Your task to perform on an android device: toggle show notifications on the lock screen Image 0: 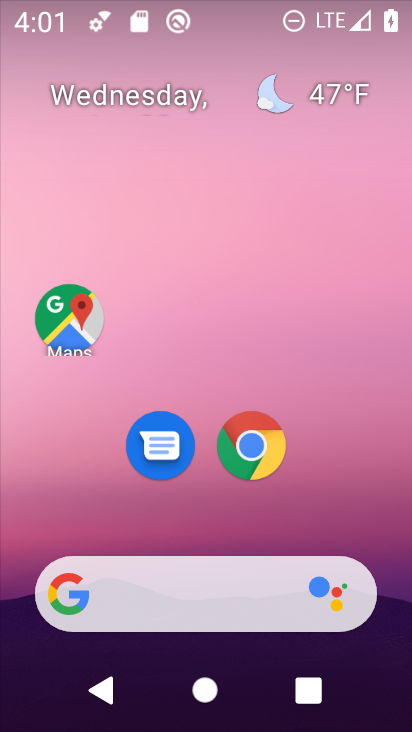
Step 0: drag from (343, 508) to (404, 75)
Your task to perform on an android device: toggle show notifications on the lock screen Image 1: 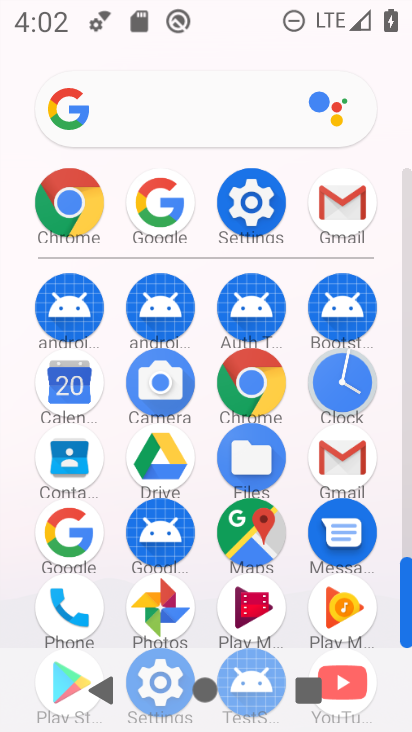
Step 1: click (261, 213)
Your task to perform on an android device: toggle show notifications on the lock screen Image 2: 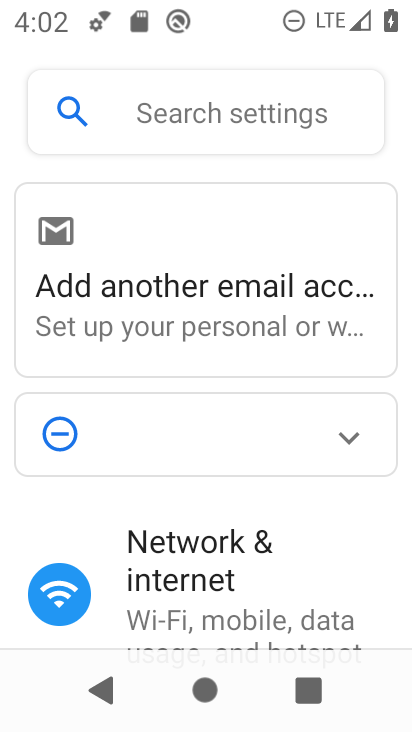
Step 2: drag from (329, 531) to (355, 240)
Your task to perform on an android device: toggle show notifications on the lock screen Image 3: 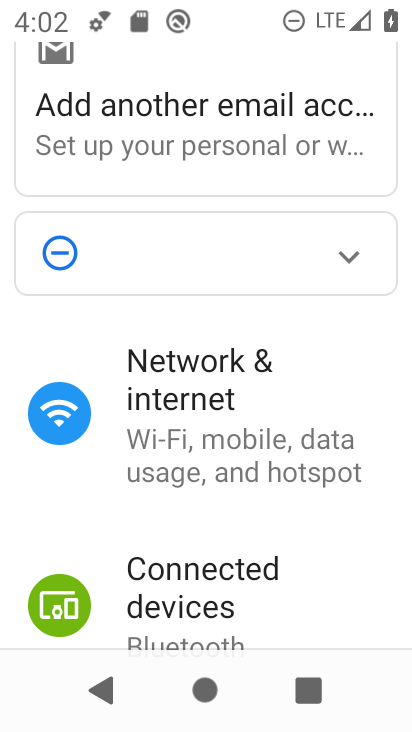
Step 3: drag from (321, 515) to (307, 313)
Your task to perform on an android device: toggle show notifications on the lock screen Image 4: 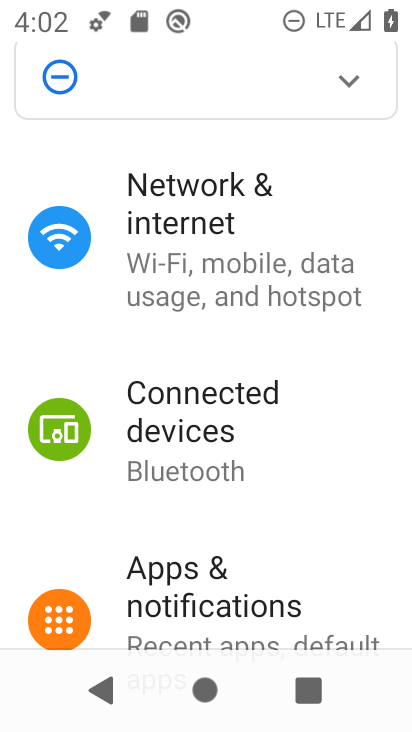
Step 4: click (195, 604)
Your task to perform on an android device: toggle show notifications on the lock screen Image 5: 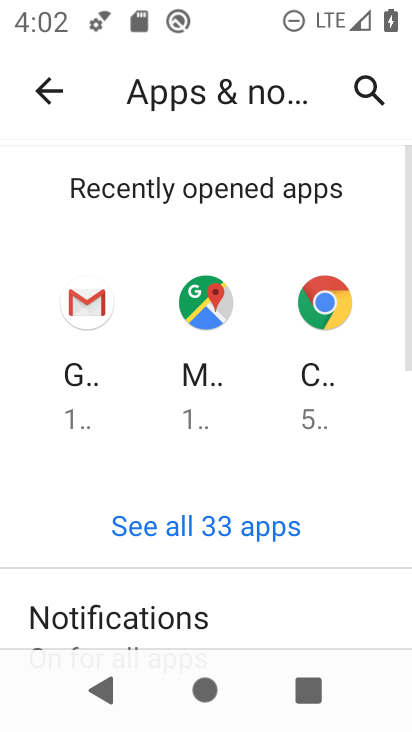
Step 5: drag from (218, 481) to (293, 252)
Your task to perform on an android device: toggle show notifications on the lock screen Image 6: 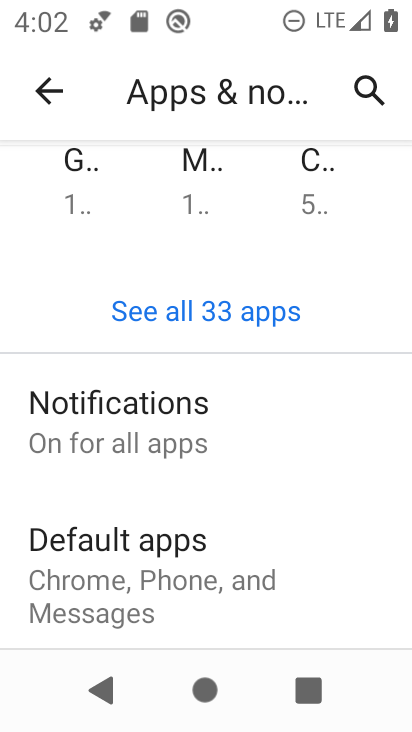
Step 6: drag from (149, 485) to (226, 251)
Your task to perform on an android device: toggle show notifications on the lock screen Image 7: 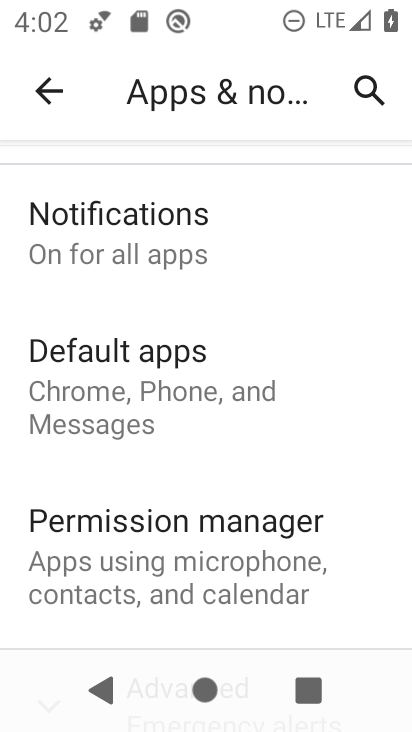
Step 7: drag from (180, 476) to (248, 181)
Your task to perform on an android device: toggle show notifications on the lock screen Image 8: 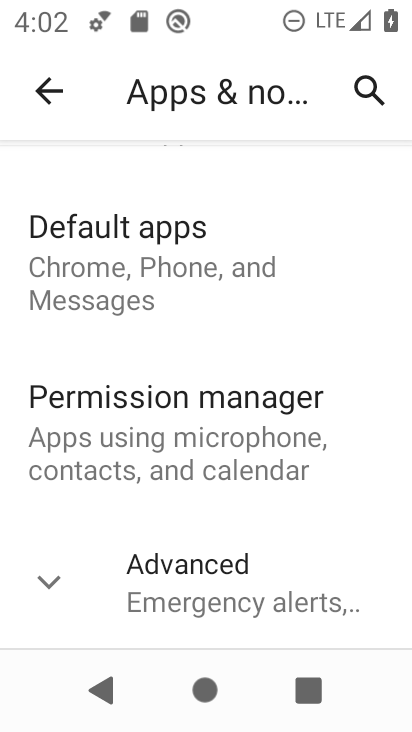
Step 8: drag from (169, 524) to (215, 131)
Your task to perform on an android device: toggle show notifications on the lock screen Image 9: 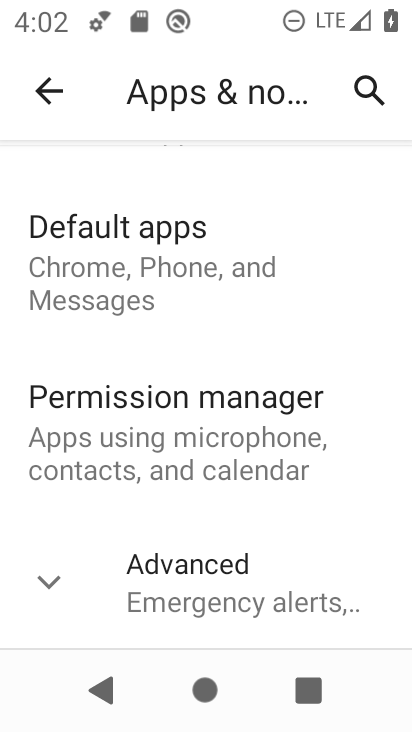
Step 9: drag from (178, 204) to (83, 545)
Your task to perform on an android device: toggle show notifications on the lock screen Image 10: 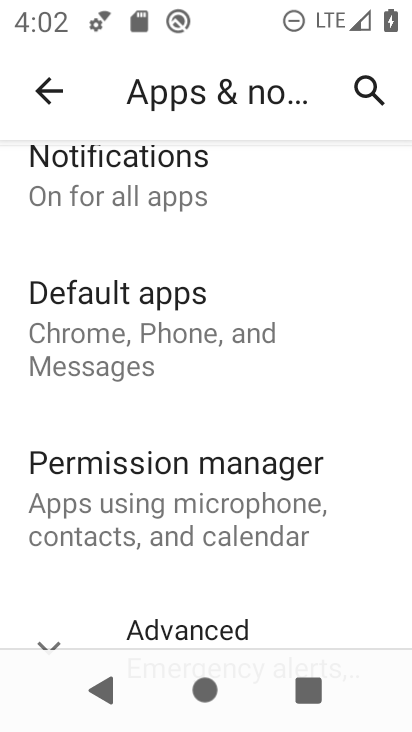
Step 10: click (166, 156)
Your task to perform on an android device: toggle show notifications on the lock screen Image 11: 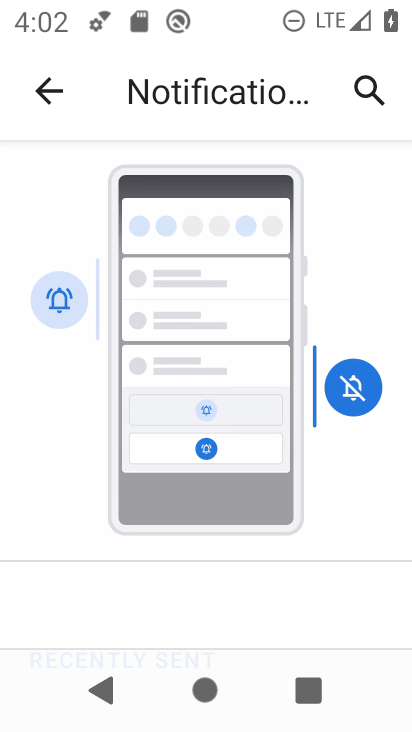
Step 11: drag from (194, 547) to (256, 325)
Your task to perform on an android device: toggle show notifications on the lock screen Image 12: 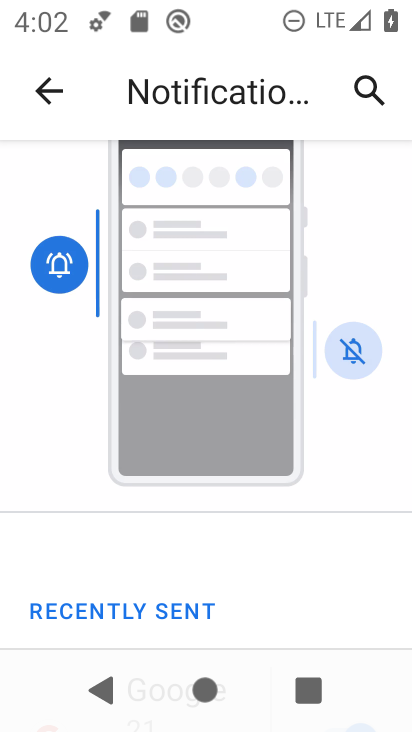
Step 12: drag from (167, 531) to (218, 164)
Your task to perform on an android device: toggle show notifications on the lock screen Image 13: 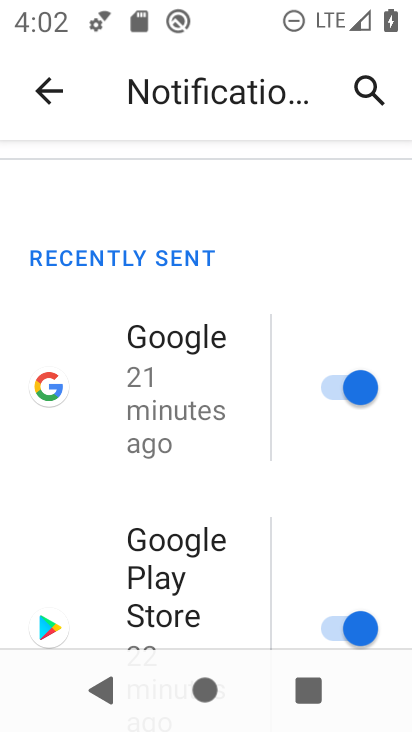
Step 13: drag from (203, 484) to (259, 166)
Your task to perform on an android device: toggle show notifications on the lock screen Image 14: 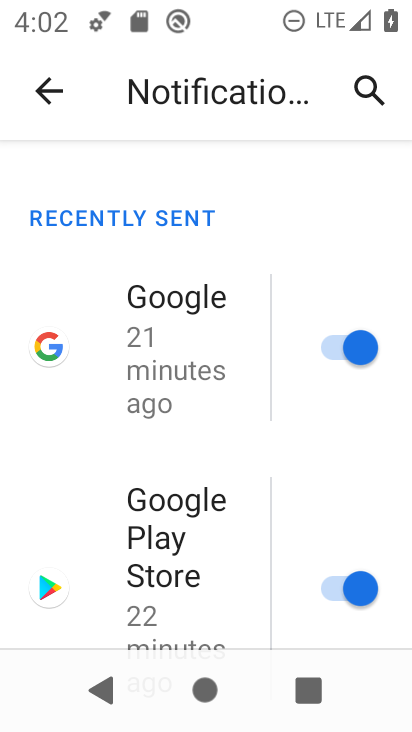
Step 14: drag from (177, 446) to (232, 165)
Your task to perform on an android device: toggle show notifications on the lock screen Image 15: 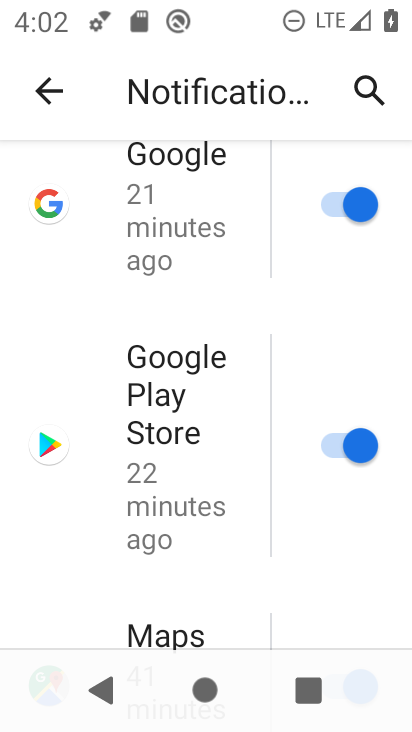
Step 15: drag from (189, 590) to (250, 198)
Your task to perform on an android device: toggle show notifications on the lock screen Image 16: 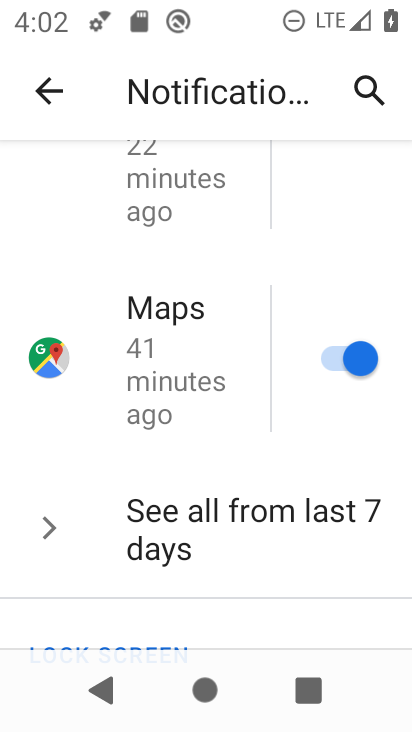
Step 16: drag from (200, 596) to (247, 263)
Your task to perform on an android device: toggle show notifications on the lock screen Image 17: 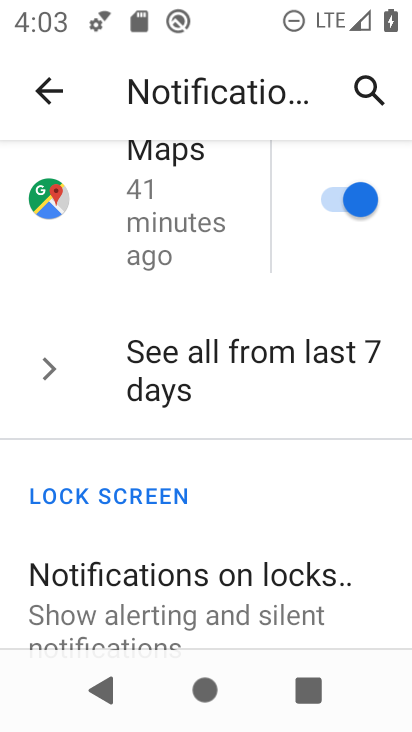
Step 17: drag from (225, 537) to (247, 345)
Your task to perform on an android device: toggle show notifications on the lock screen Image 18: 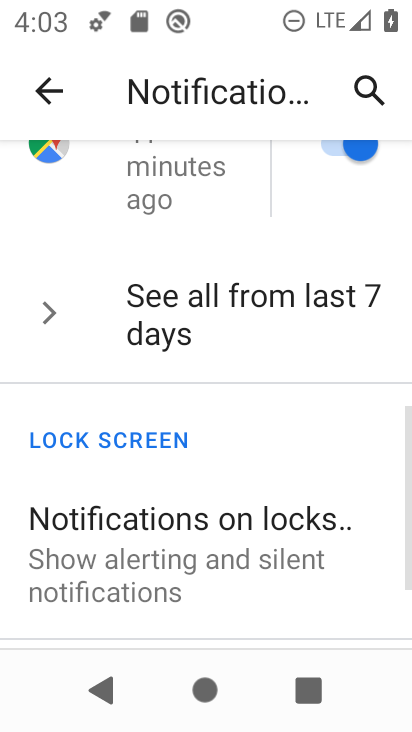
Step 18: click (150, 537)
Your task to perform on an android device: toggle show notifications on the lock screen Image 19: 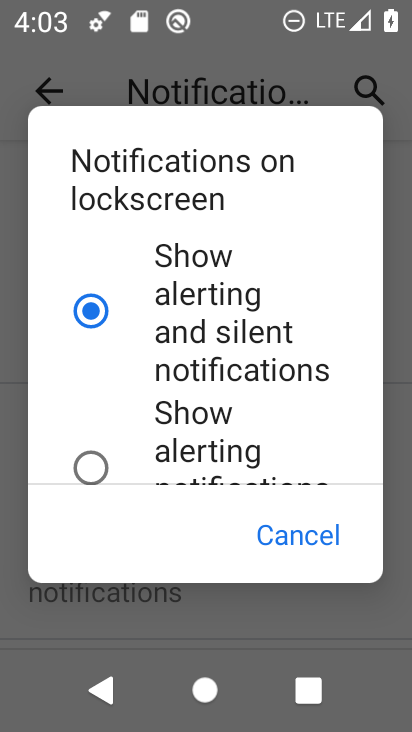
Step 19: drag from (299, 431) to (328, 187)
Your task to perform on an android device: toggle show notifications on the lock screen Image 20: 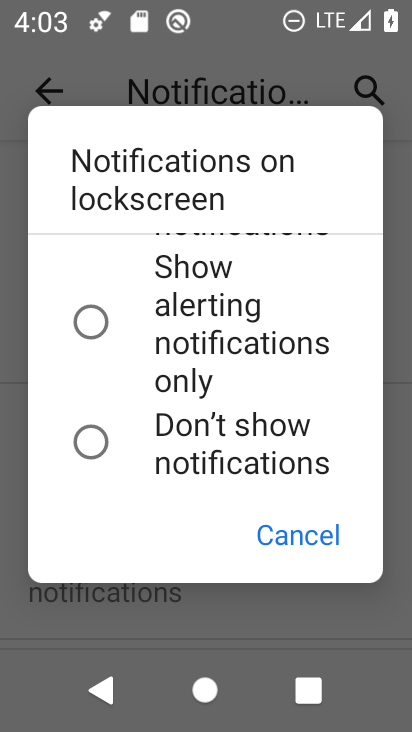
Step 20: click (99, 445)
Your task to perform on an android device: toggle show notifications on the lock screen Image 21: 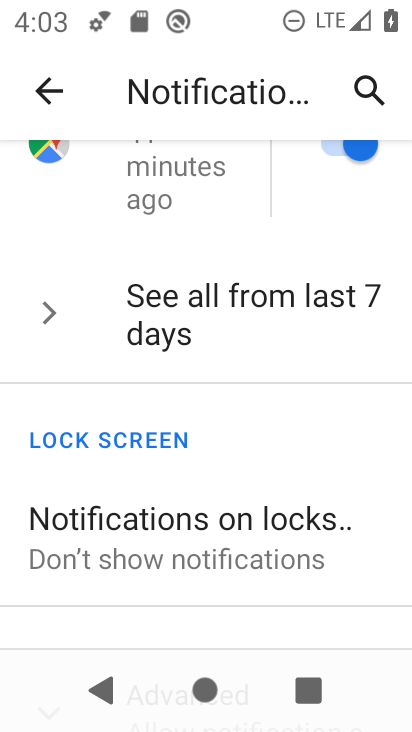
Step 21: task complete